Your task to perform on an android device: toggle sleep mode Image 0: 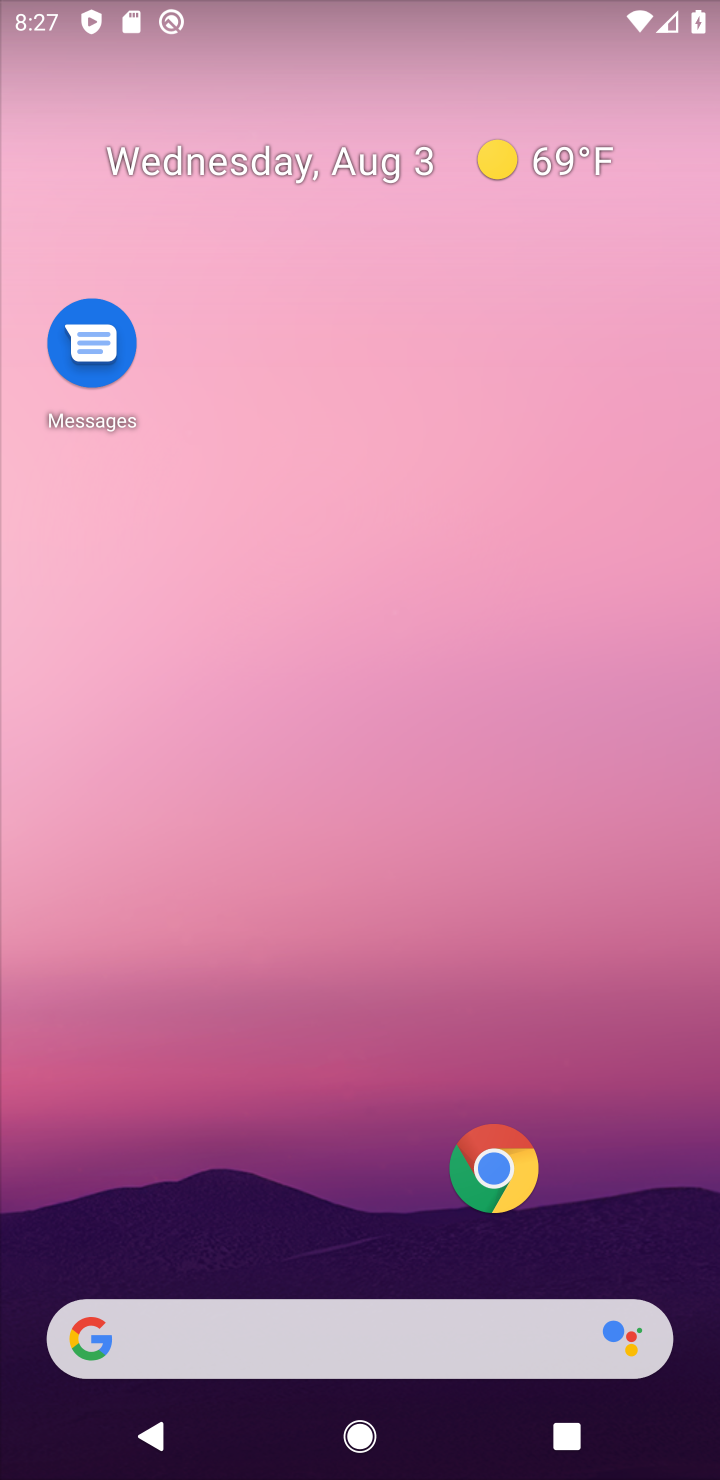
Step 0: drag from (333, 941) to (612, 401)
Your task to perform on an android device: toggle sleep mode Image 1: 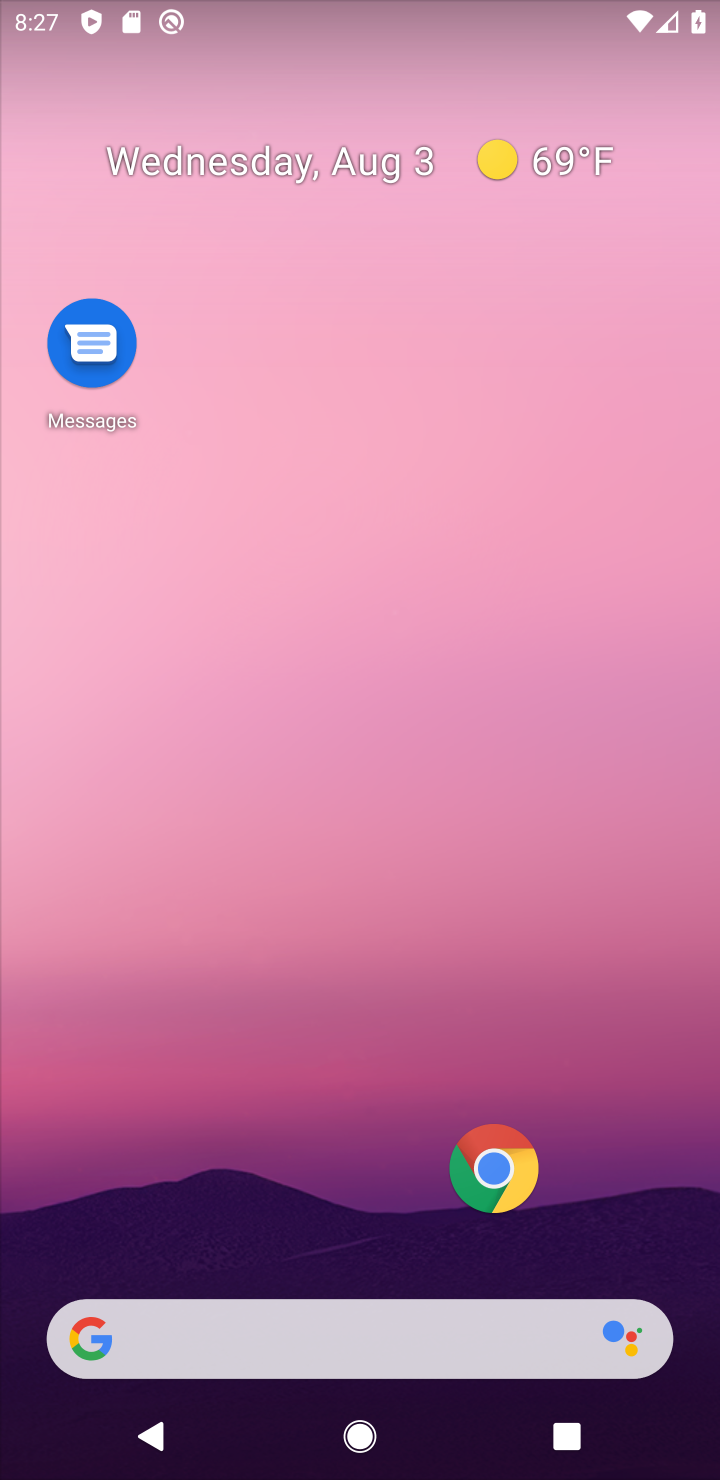
Step 1: drag from (351, 1249) to (360, 59)
Your task to perform on an android device: toggle sleep mode Image 2: 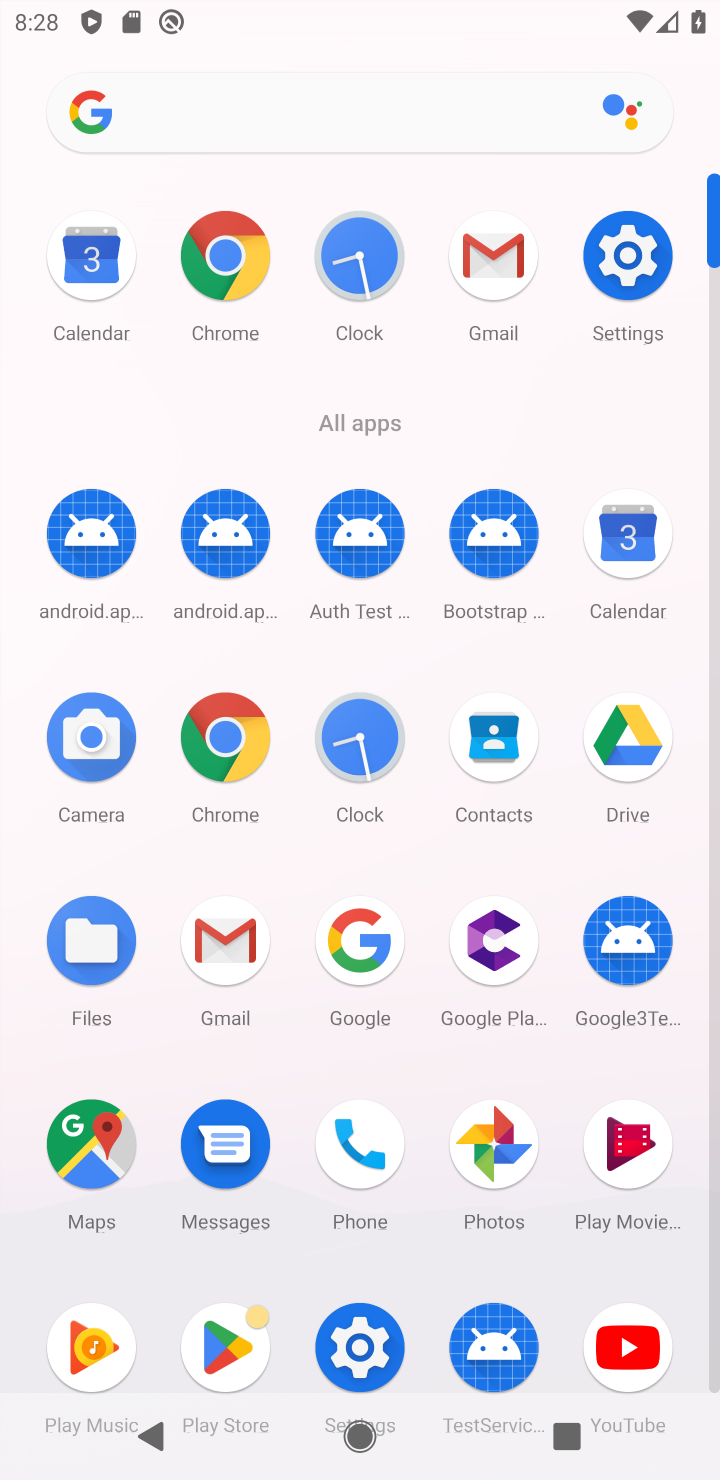
Step 2: click (335, 1341)
Your task to perform on an android device: toggle sleep mode Image 3: 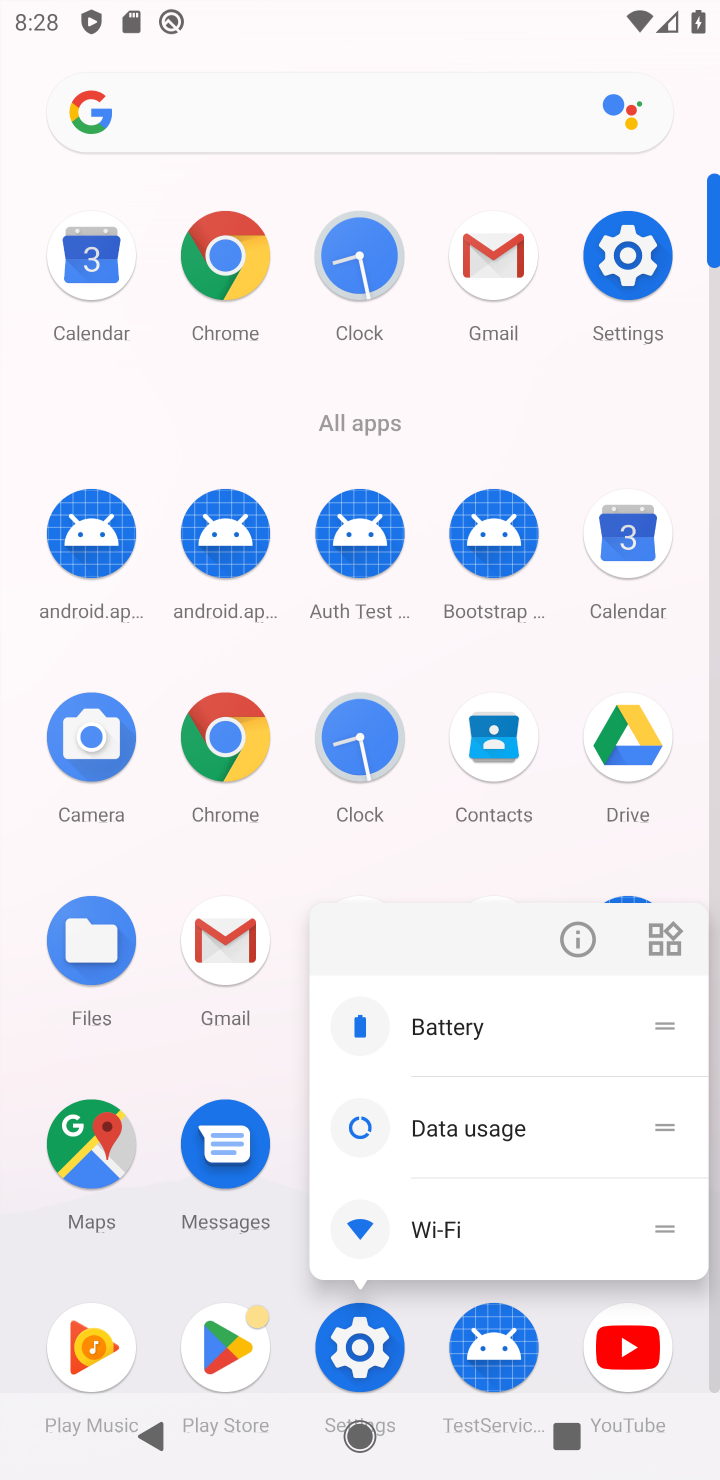
Step 3: click (347, 1341)
Your task to perform on an android device: toggle sleep mode Image 4: 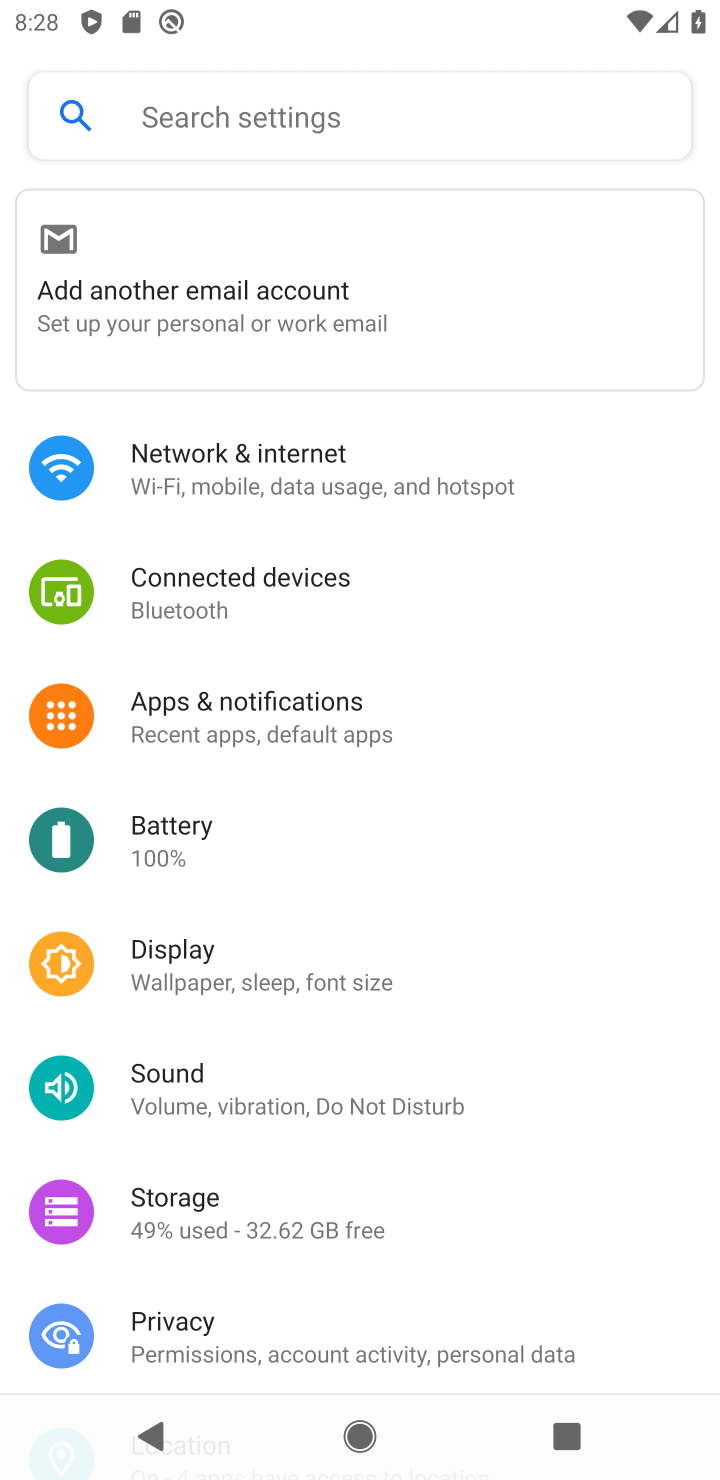
Step 4: click (201, 953)
Your task to perform on an android device: toggle sleep mode Image 5: 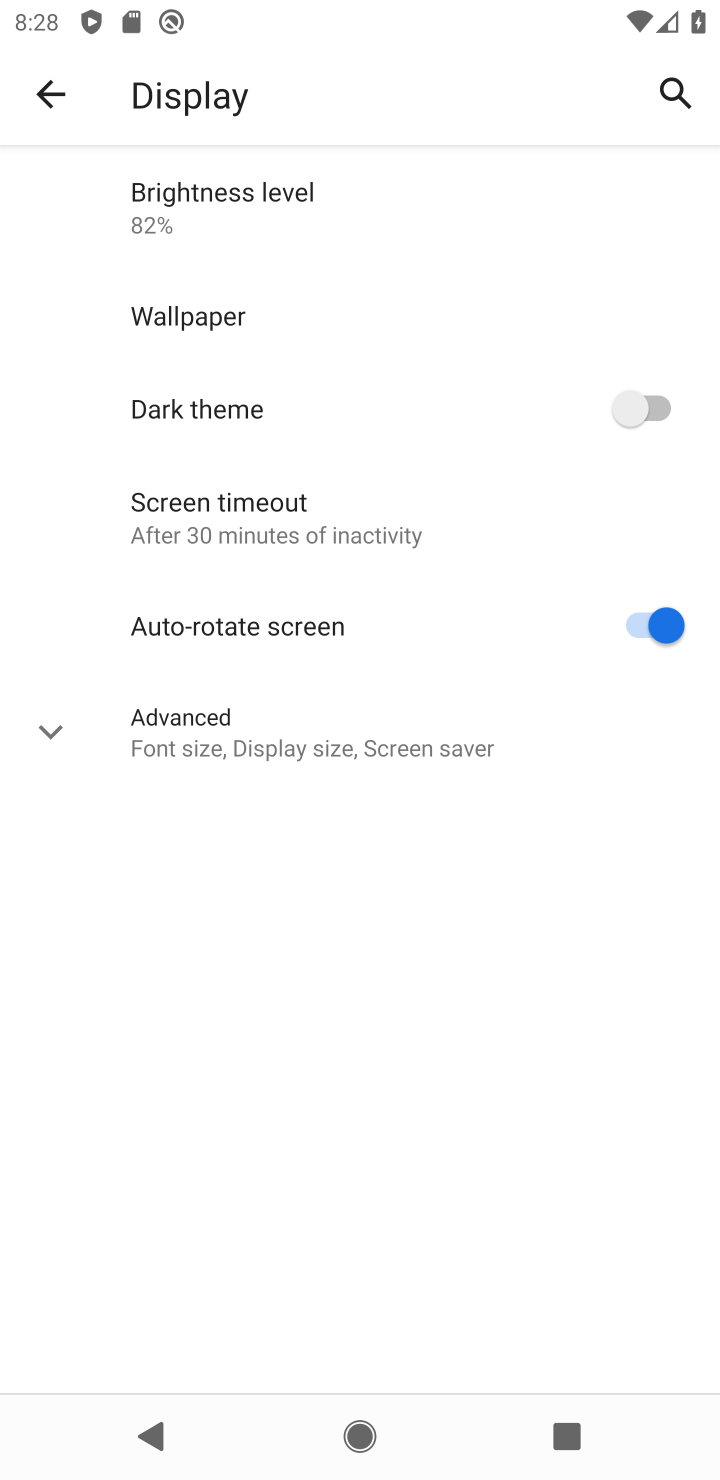
Step 5: click (148, 739)
Your task to perform on an android device: toggle sleep mode Image 6: 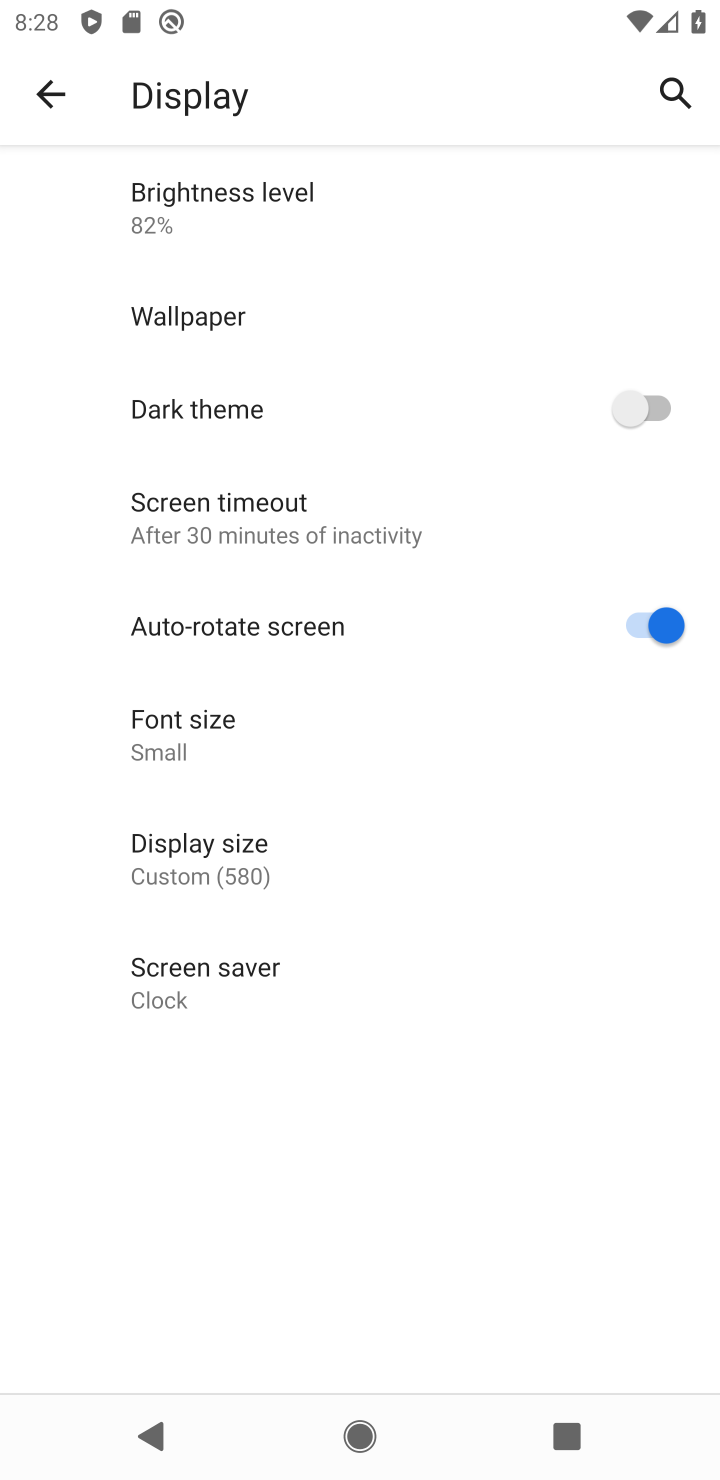
Step 6: task complete